Your task to perform on an android device: Open eBay Image 0: 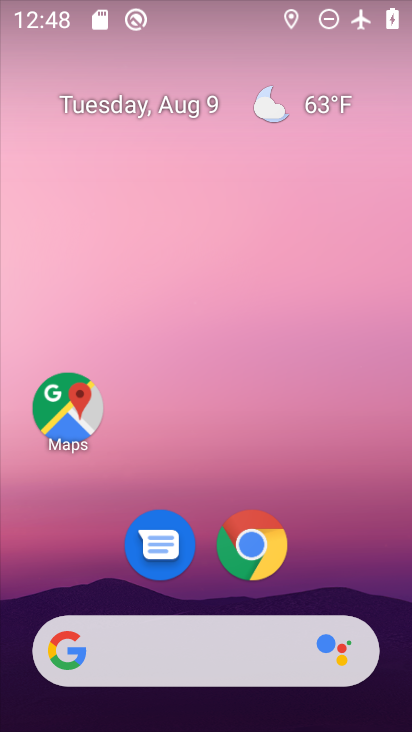
Step 0: click (250, 543)
Your task to perform on an android device: Open eBay Image 1: 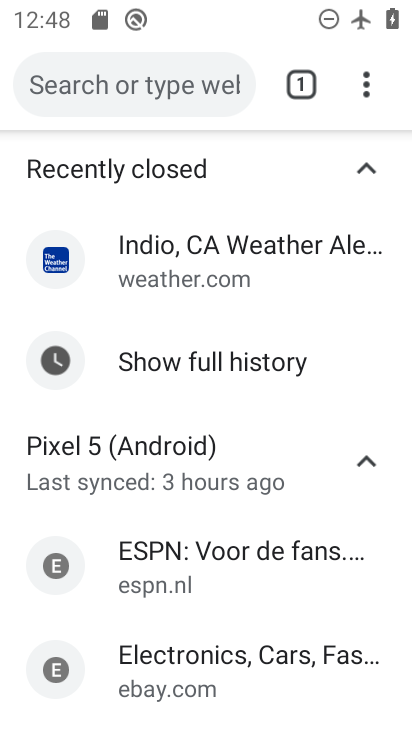
Step 1: click (172, 84)
Your task to perform on an android device: Open eBay Image 2: 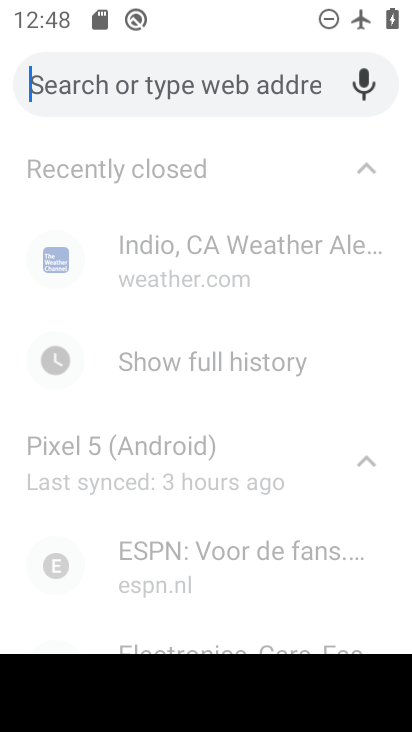
Step 2: type "eBay"
Your task to perform on an android device: Open eBay Image 3: 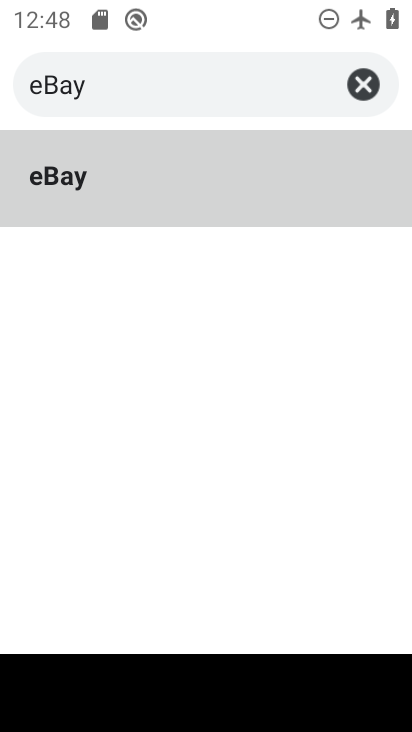
Step 3: click (198, 183)
Your task to perform on an android device: Open eBay Image 4: 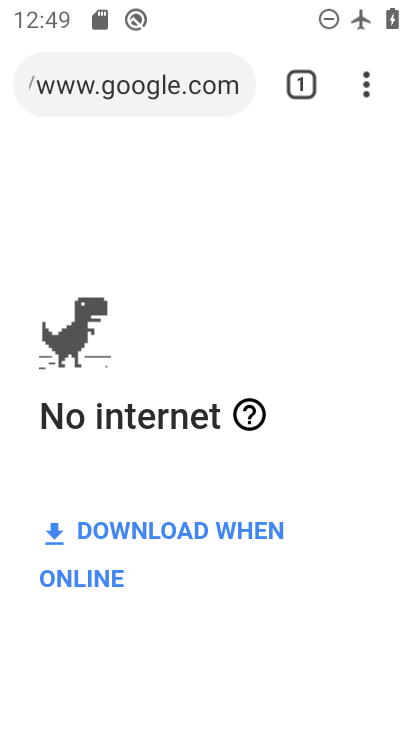
Step 4: task complete